Your task to perform on an android device: When is my next meeting? Image 0: 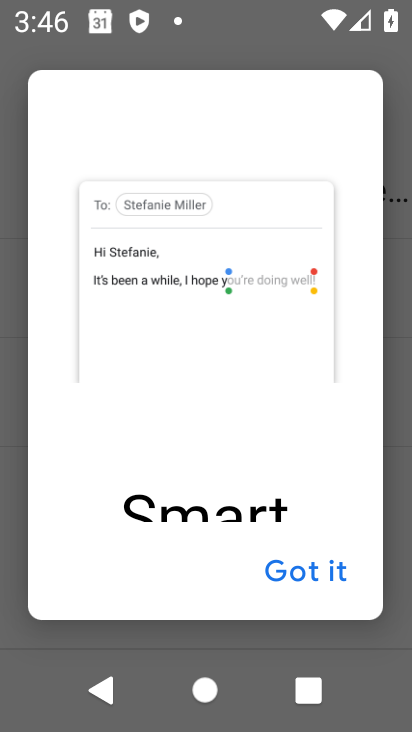
Step 0: press home button
Your task to perform on an android device: When is my next meeting? Image 1: 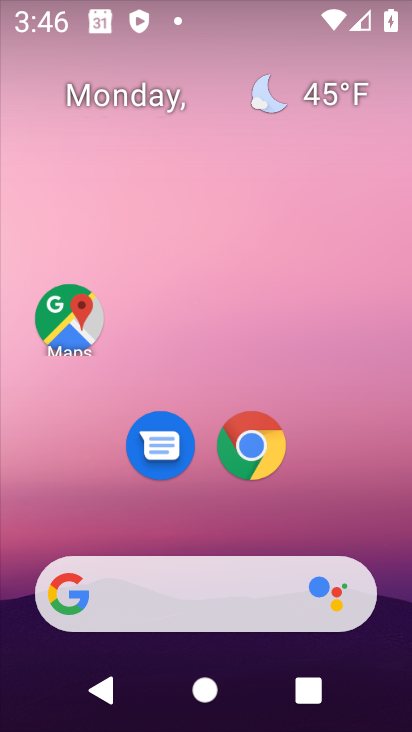
Step 1: drag from (211, 491) to (89, 14)
Your task to perform on an android device: When is my next meeting? Image 2: 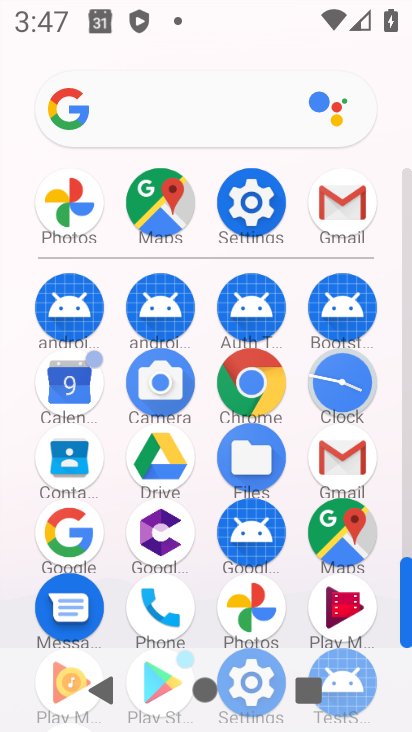
Step 2: click (65, 391)
Your task to perform on an android device: When is my next meeting? Image 3: 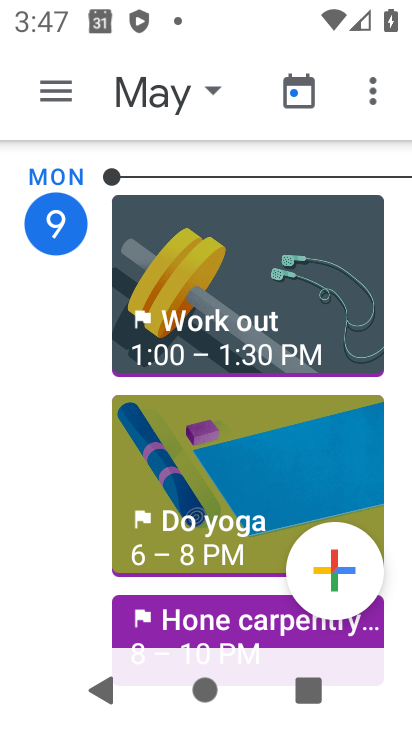
Step 3: click (175, 111)
Your task to perform on an android device: When is my next meeting? Image 4: 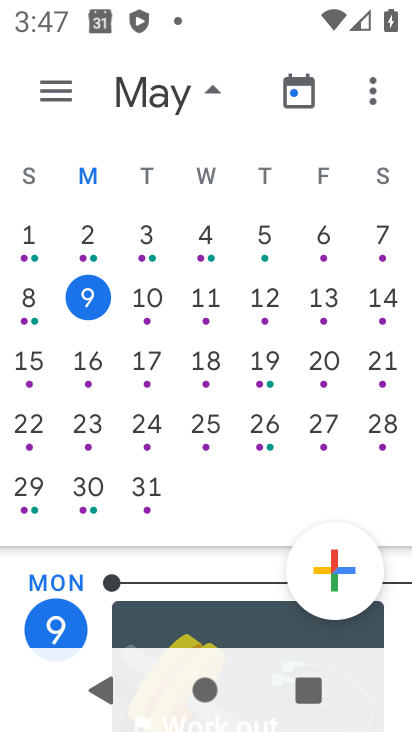
Step 4: click (101, 318)
Your task to perform on an android device: When is my next meeting? Image 5: 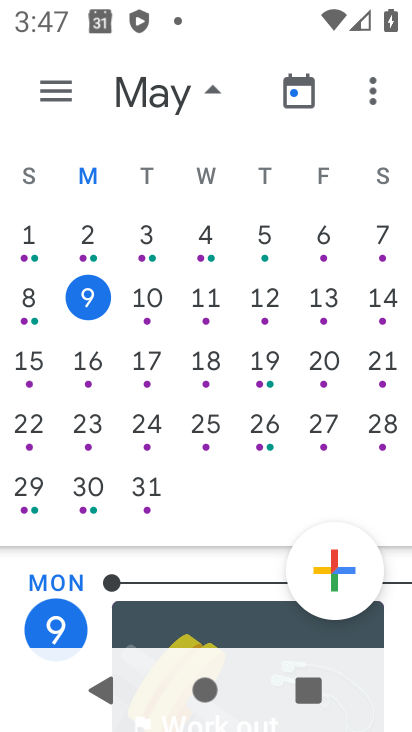
Step 5: task complete